Your task to perform on an android device: read, delete, or share a saved page in the chrome app Image 0: 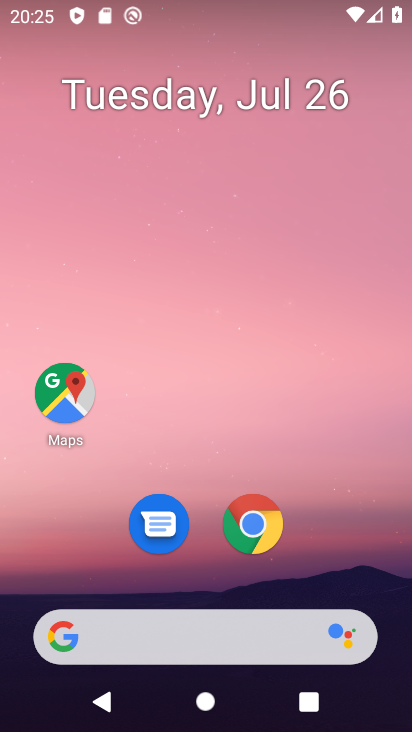
Step 0: press home button
Your task to perform on an android device: read, delete, or share a saved page in the chrome app Image 1: 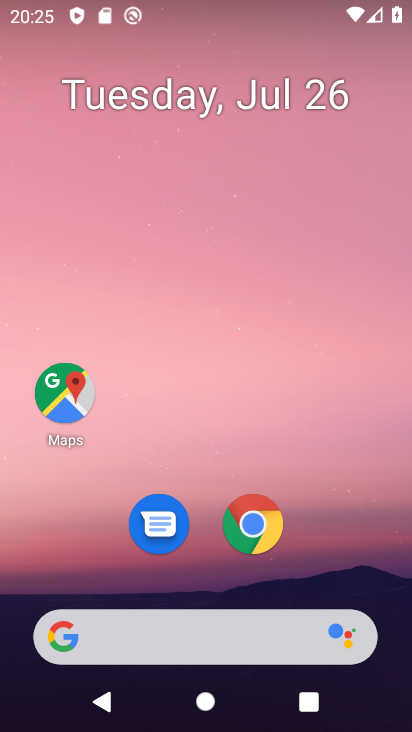
Step 1: click (255, 530)
Your task to perform on an android device: read, delete, or share a saved page in the chrome app Image 2: 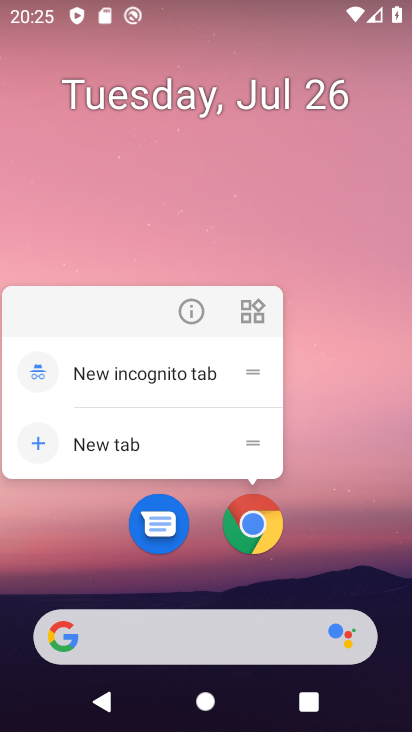
Step 2: click (256, 530)
Your task to perform on an android device: read, delete, or share a saved page in the chrome app Image 3: 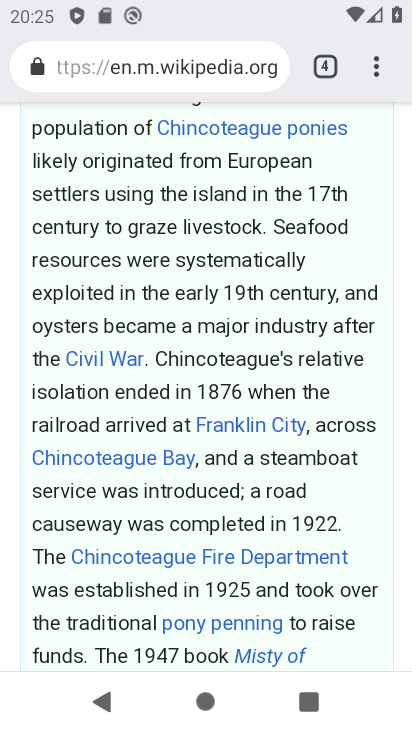
Step 3: drag from (375, 67) to (172, 443)
Your task to perform on an android device: read, delete, or share a saved page in the chrome app Image 4: 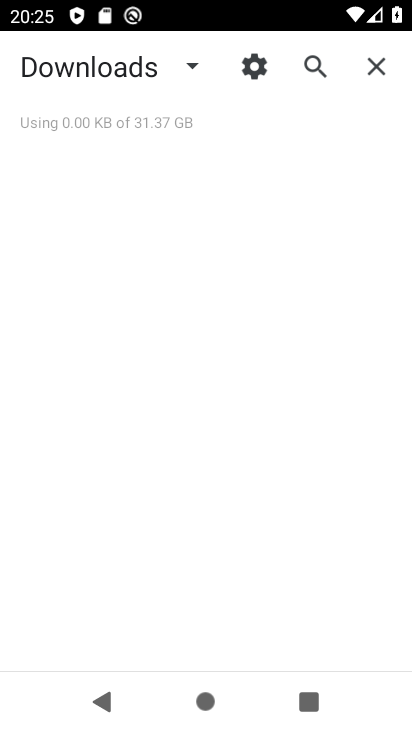
Step 4: click (189, 56)
Your task to perform on an android device: read, delete, or share a saved page in the chrome app Image 5: 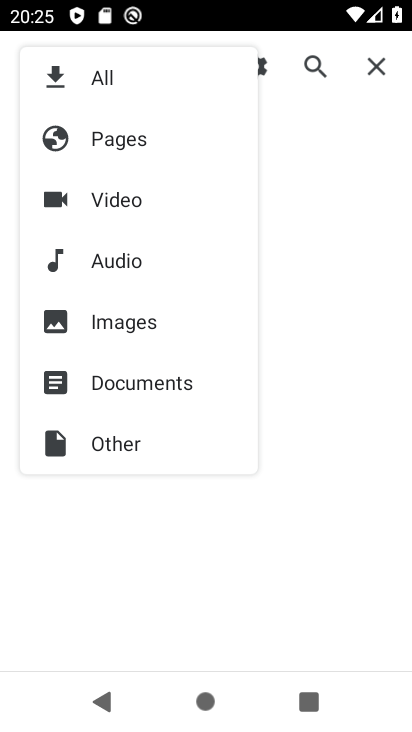
Step 5: click (121, 137)
Your task to perform on an android device: read, delete, or share a saved page in the chrome app Image 6: 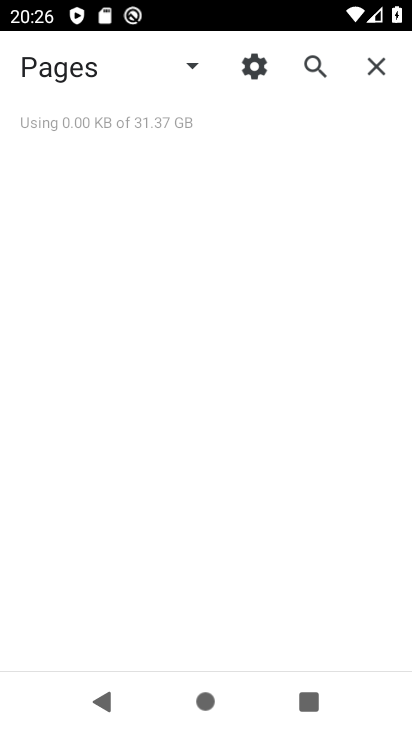
Step 6: task complete